Your task to perform on an android device: toggle notification dots Image 0: 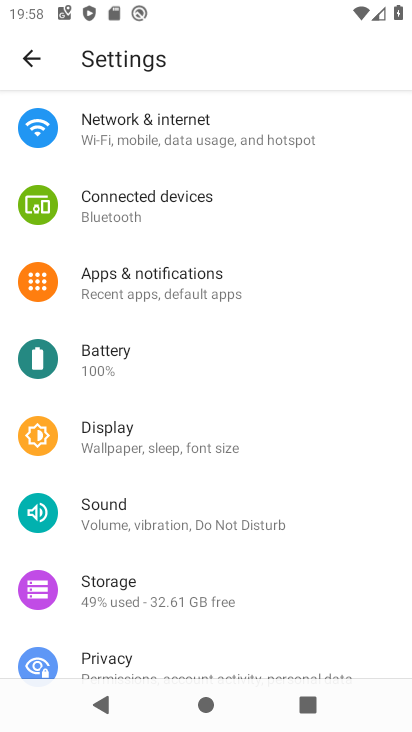
Step 0: drag from (379, 577) to (373, 459)
Your task to perform on an android device: toggle notification dots Image 1: 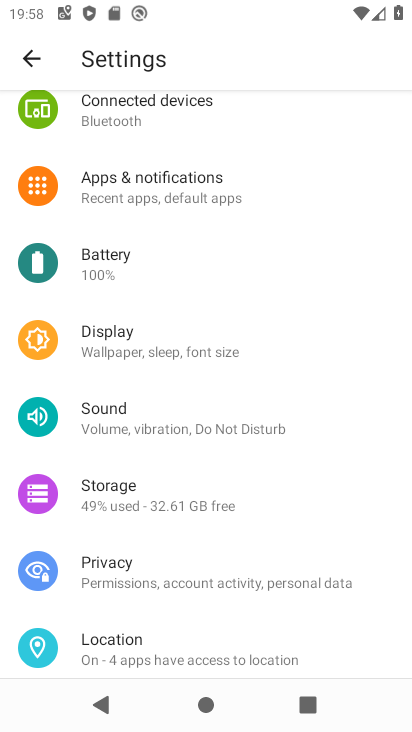
Step 1: drag from (374, 609) to (377, 492)
Your task to perform on an android device: toggle notification dots Image 2: 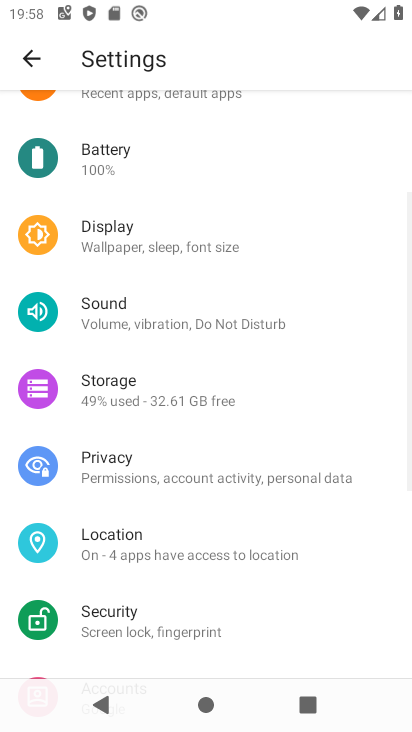
Step 2: drag from (366, 597) to (371, 482)
Your task to perform on an android device: toggle notification dots Image 3: 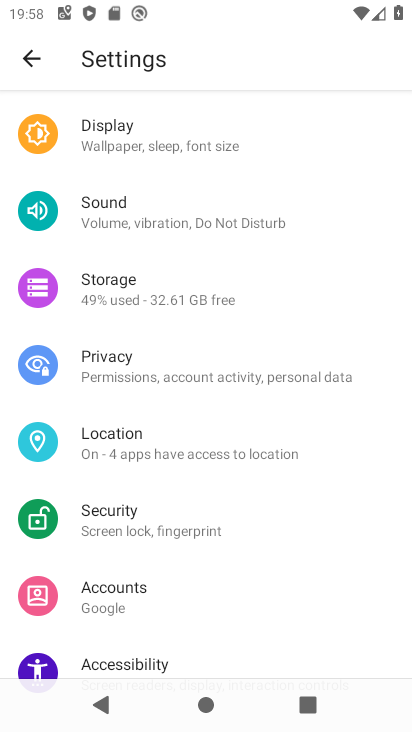
Step 3: drag from (364, 614) to (358, 471)
Your task to perform on an android device: toggle notification dots Image 4: 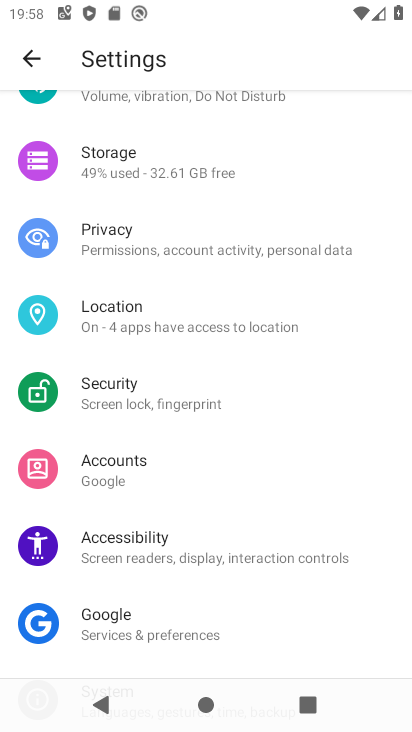
Step 4: drag from (361, 609) to (364, 480)
Your task to perform on an android device: toggle notification dots Image 5: 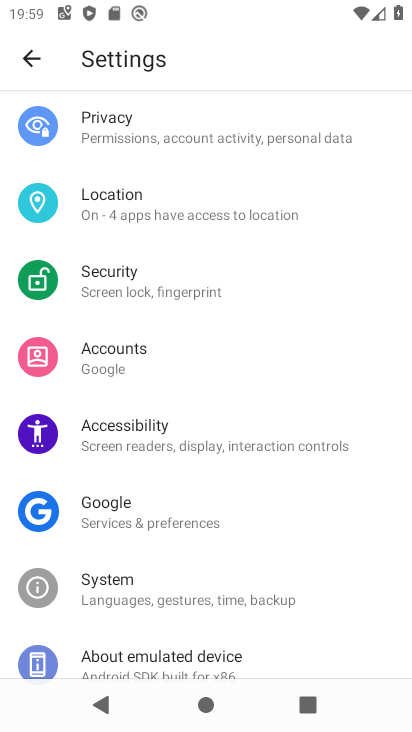
Step 5: drag from (373, 620) to (359, 486)
Your task to perform on an android device: toggle notification dots Image 6: 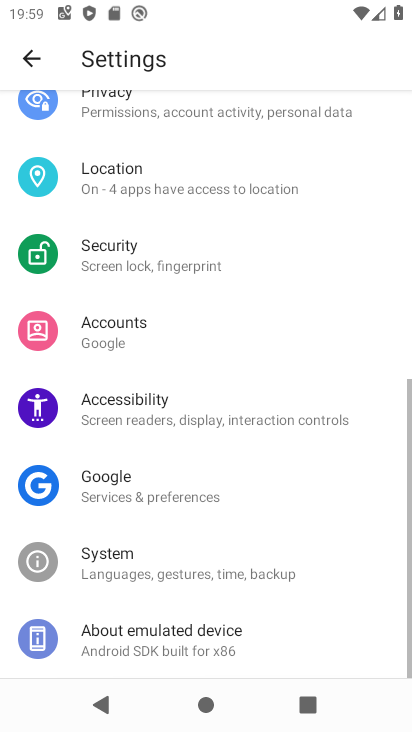
Step 6: drag from (359, 408) to (351, 525)
Your task to perform on an android device: toggle notification dots Image 7: 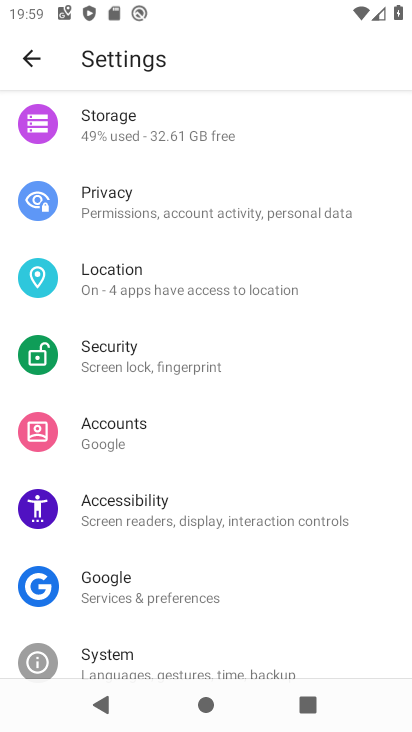
Step 7: drag from (358, 354) to (354, 478)
Your task to perform on an android device: toggle notification dots Image 8: 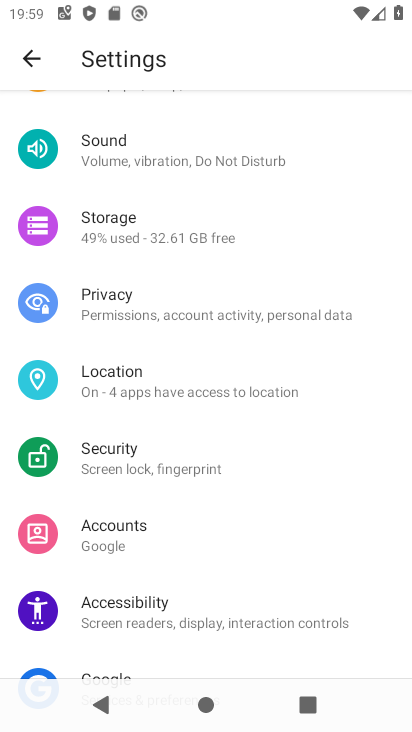
Step 8: drag from (351, 356) to (353, 464)
Your task to perform on an android device: toggle notification dots Image 9: 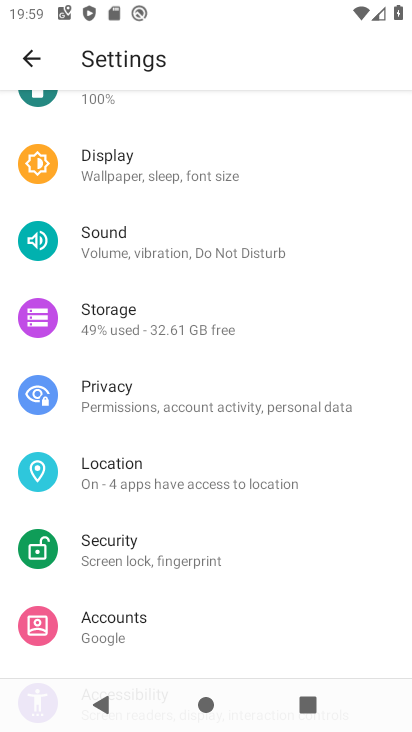
Step 9: drag from (356, 314) to (342, 432)
Your task to perform on an android device: toggle notification dots Image 10: 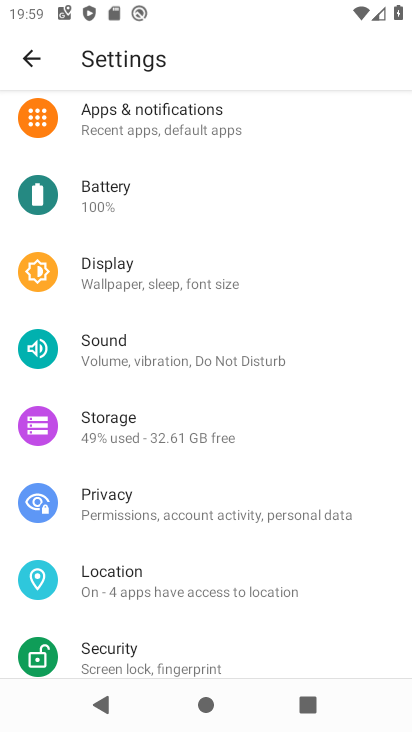
Step 10: drag from (341, 290) to (338, 419)
Your task to perform on an android device: toggle notification dots Image 11: 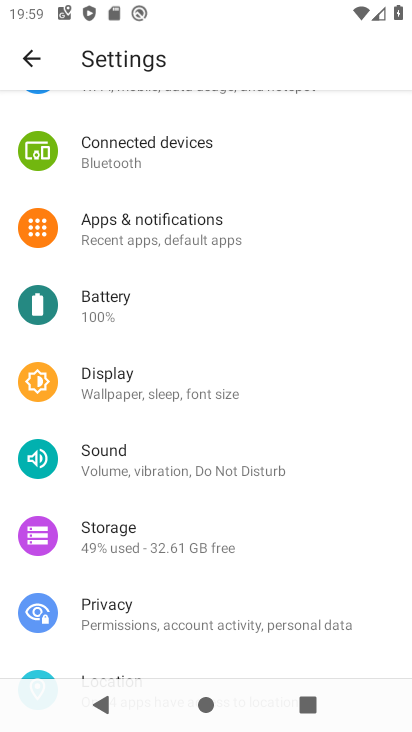
Step 11: drag from (316, 302) to (334, 464)
Your task to perform on an android device: toggle notification dots Image 12: 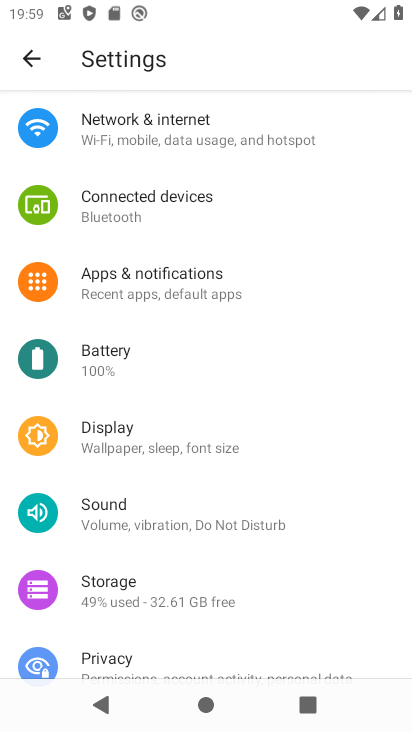
Step 12: drag from (324, 303) to (325, 437)
Your task to perform on an android device: toggle notification dots Image 13: 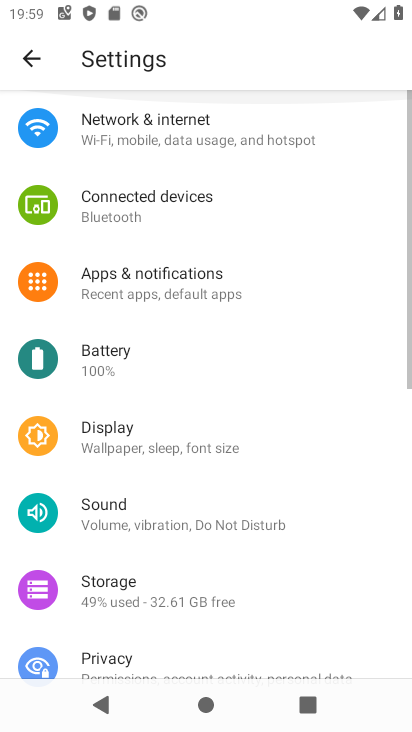
Step 13: click (198, 292)
Your task to perform on an android device: toggle notification dots Image 14: 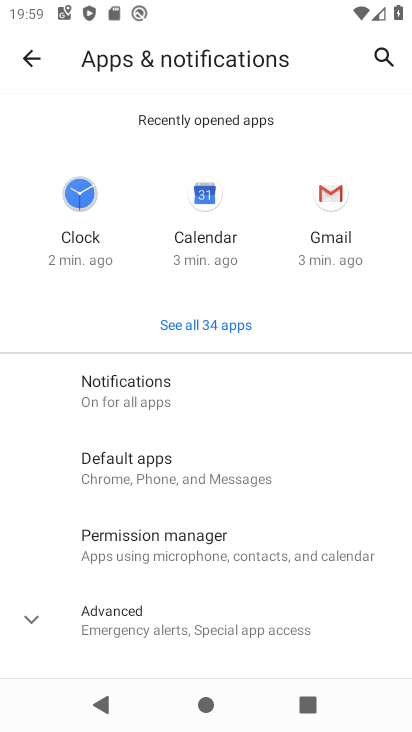
Step 14: click (171, 407)
Your task to perform on an android device: toggle notification dots Image 15: 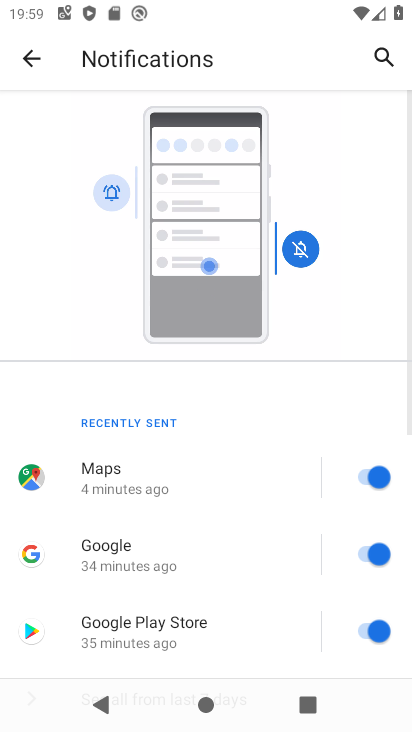
Step 15: drag from (287, 525) to (284, 410)
Your task to perform on an android device: toggle notification dots Image 16: 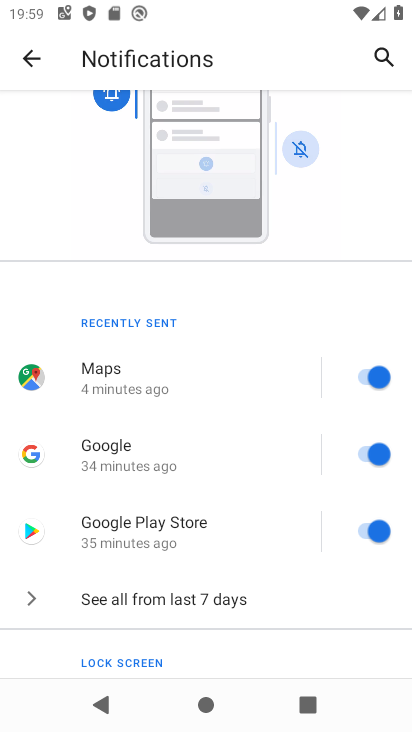
Step 16: drag from (284, 550) to (281, 423)
Your task to perform on an android device: toggle notification dots Image 17: 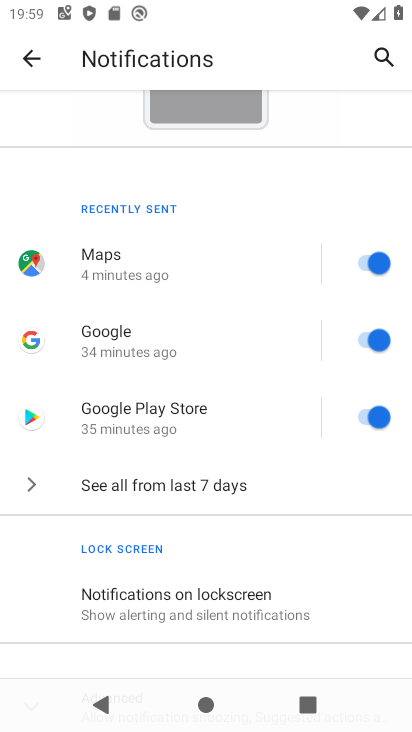
Step 17: drag from (294, 559) to (287, 437)
Your task to perform on an android device: toggle notification dots Image 18: 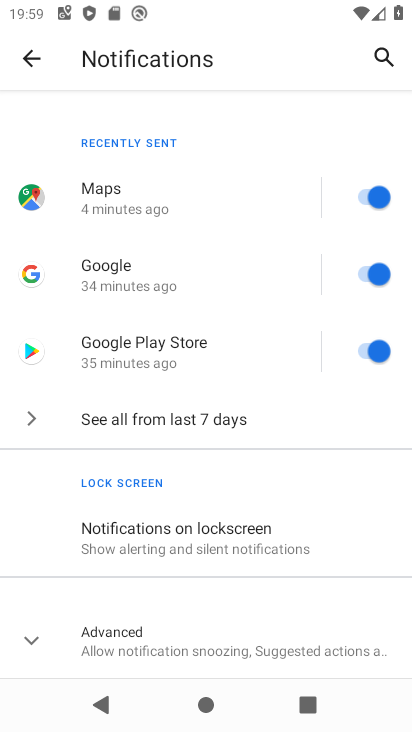
Step 18: click (265, 644)
Your task to perform on an android device: toggle notification dots Image 19: 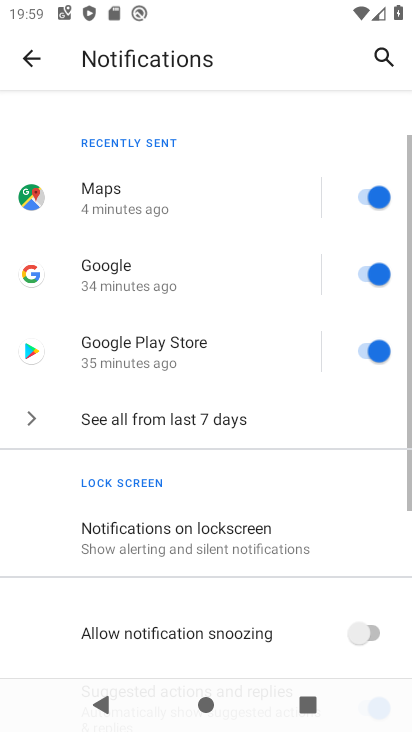
Step 19: drag from (275, 591) to (277, 468)
Your task to perform on an android device: toggle notification dots Image 20: 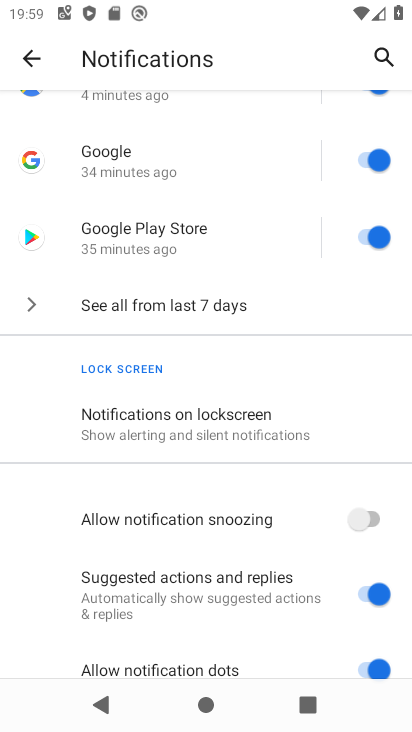
Step 20: drag from (293, 616) to (291, 506)
Your task to perform on an android device: toggle notification dots Image 21: 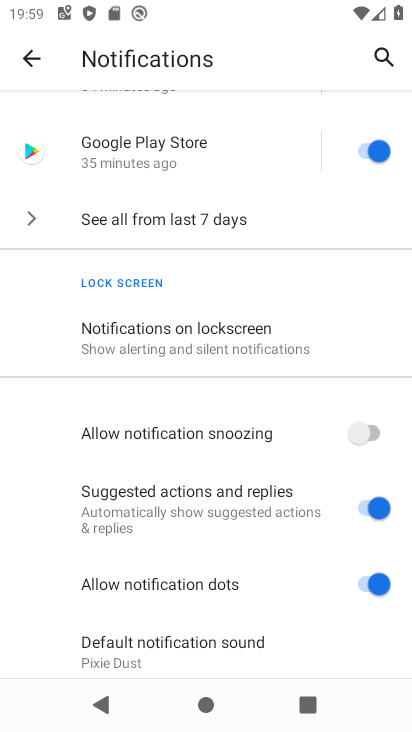
Step 21: drag from (300, 609) to (299, 457)
Your task to perform on an android device: toggle notification dots Image 22: 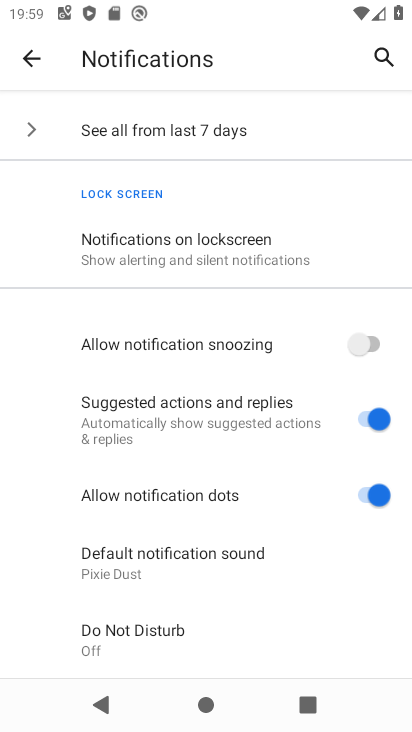
Step 22: click (378, 497)
Your task to perform on an android device: toggle notification dots Image 23: 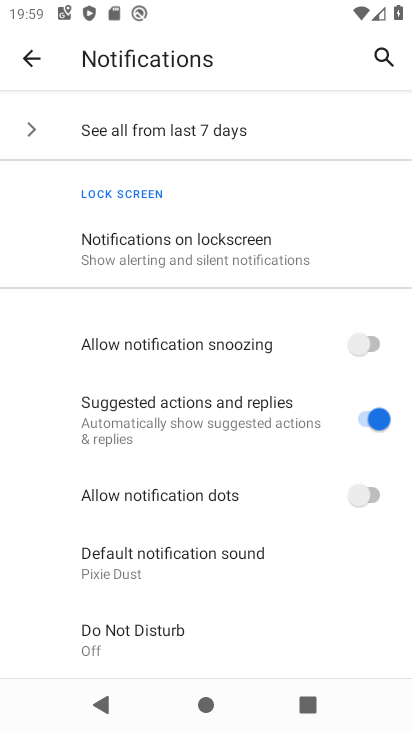
Step 23: task complete